Your task to perform on an android device: What's on my calendar tomorrow? Image 0: 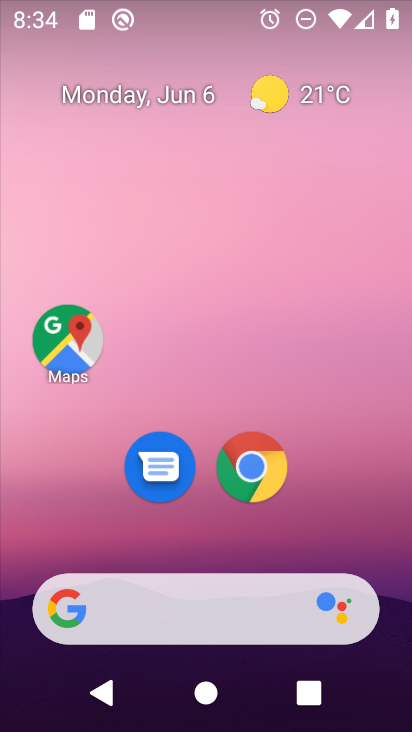
Step 0: drag from (372, 541) to (392, 161)
Your task to perform on an android device: What's on my calendar tomorrow? Image 1: 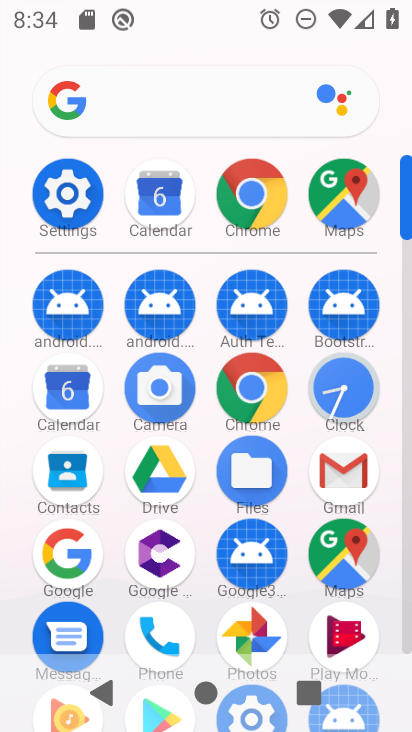
Step 1: click (70, 397)
Your task to perform on an android device: What's on my calendar tomorrow? Image 2: 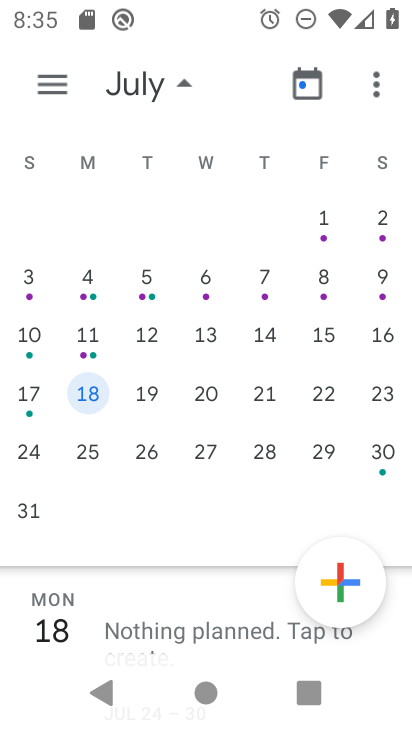
Step 2: task complete